Your task to perform on an android device: toggle improve location accuracy Image 0: 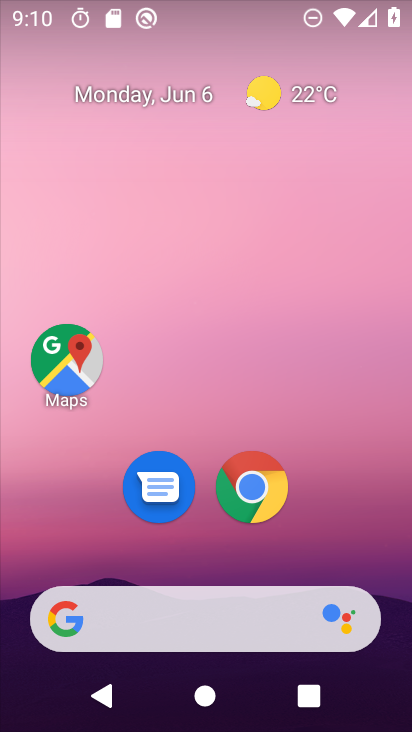
Step 0: drag from (388, 620) to (270, 123)
Your task to perform on an android device: toggle improve location accuracy Image 1: 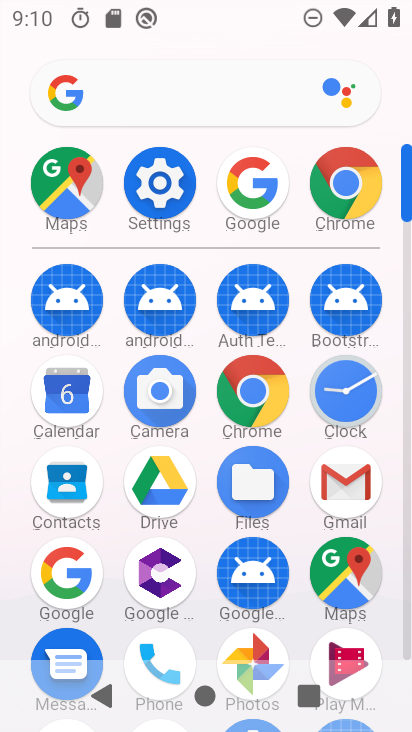
Step 1: click (156, 147)
Your task to perform on an android device: toggle improve location accuracy Image 2: 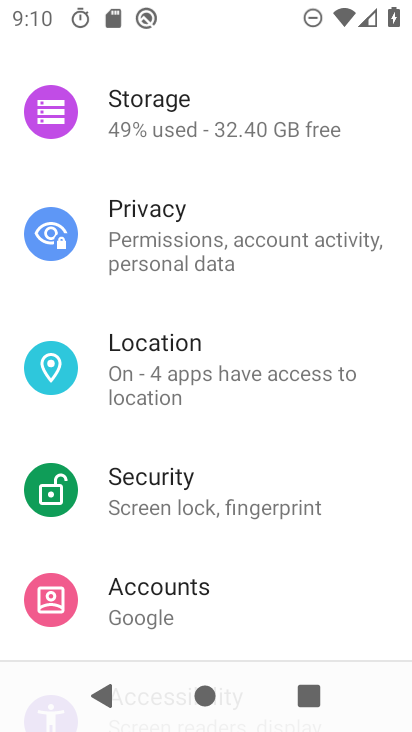
Step 2: click (185, 380)
Your task to perform on an android device: toggle improve location accuracy Image 3: 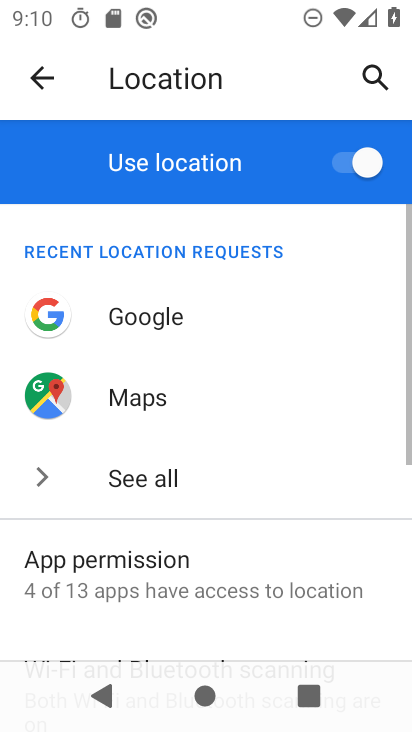
Step 3: drag from (222, 623) to (281, 141)
Your task to perform on an android device: toggle improve location accuracy Image 4: 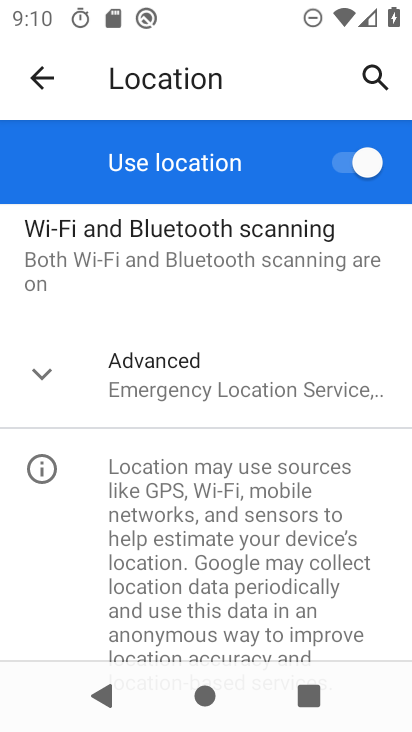
Step 4: click (125, 394)
Your task to perform on an android device: toggle improve location accuracy Image 5: 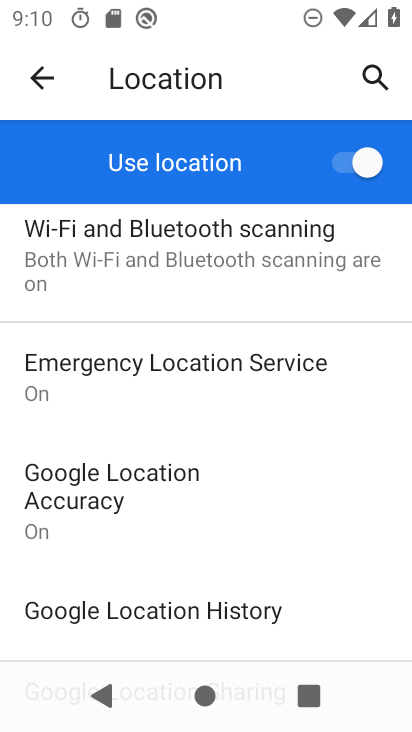
Step 5: click (152, 522)
Your task to perform on an android device: toggle improve location accuracy Image 6: 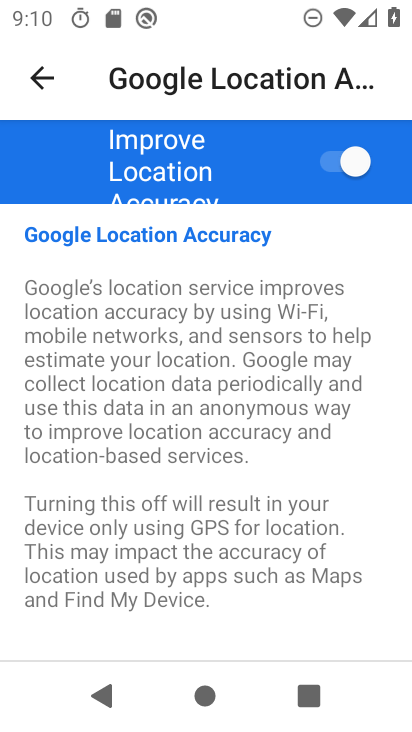
Step 6: click (330, 157)
Your task to perform on an android device: toggle improve location accuracy Image 7: 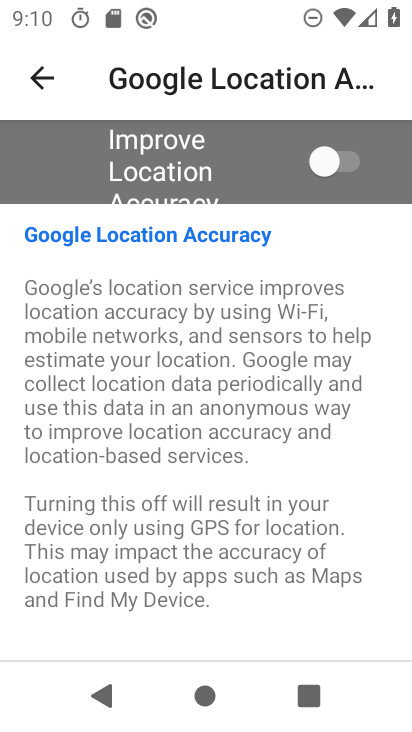
Step 7: task complete